Your task to perform on an android device: check battery use Image 0: 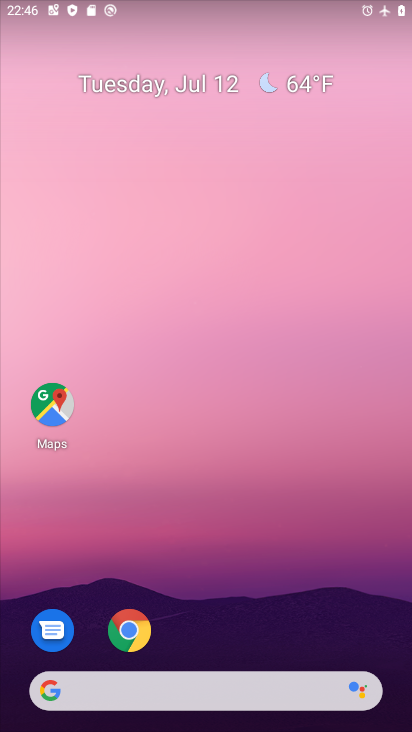
Step 0: drag from (210, 661) to (410, 251)
Your task to perform on an android device: check battery use Image 1: 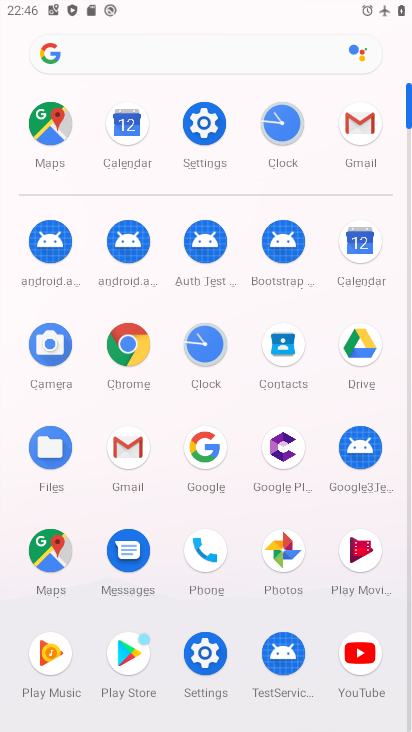
Step 1: click (212, 647)
Your task to perform on an android device: check battery use Image 2: 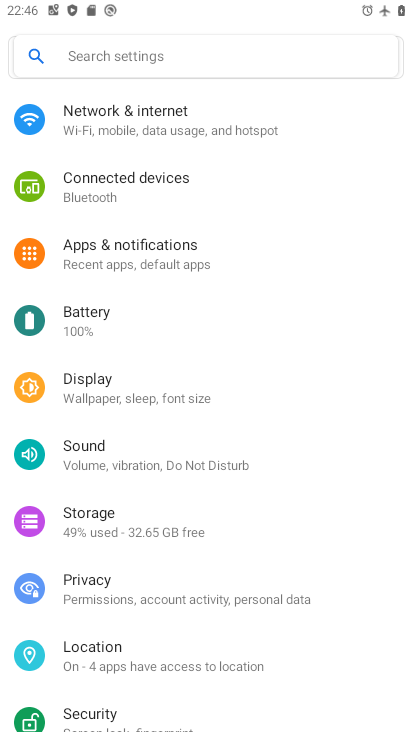
Step 2: click (74, 311)
Your task to perform on an android device: check battery use Image 3: 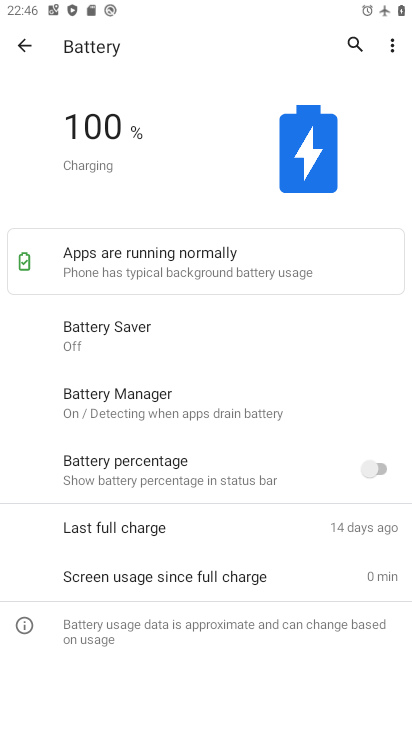
Step 3: task complete